Your task to perform on an android device: Open Youtube and go to the subscriptions tab Image 0: 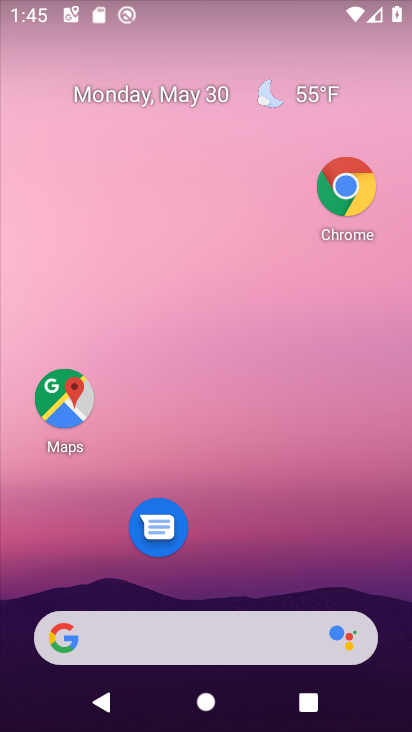
Step 0: drag from (233, 579) to (252, 204)
Your task to perform on an android device: Open Youtube and go to the subscriptions tab Image 1: 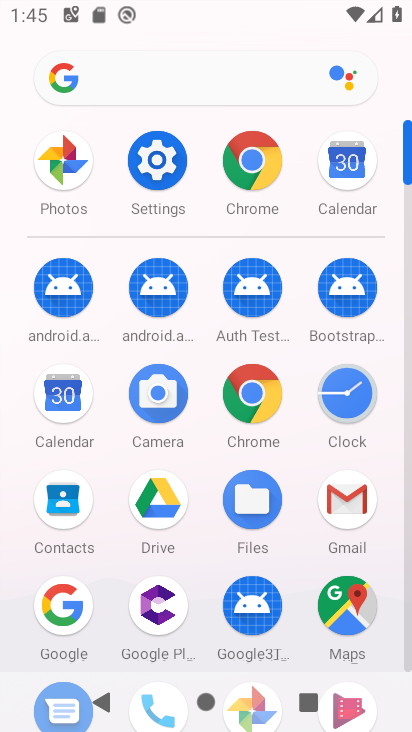
Step 1: drag from (199, 634) to (203, 332)
Your task to perform on an android device: Open Youtube and go to the subscriptions tab Image 2: 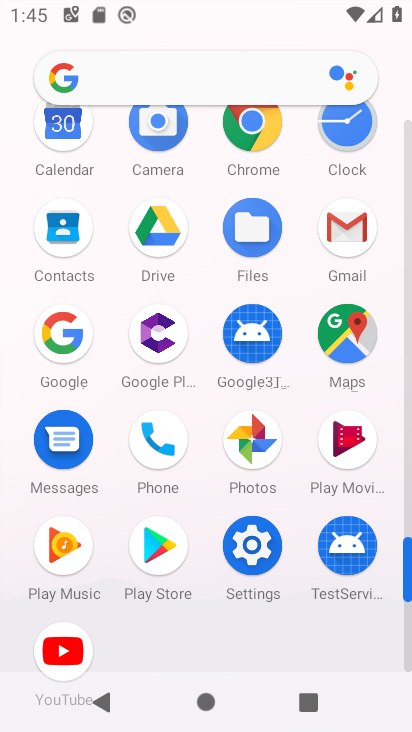
Step 2: click (57, 647)
Your task to perform on an android device: Open Youtube and go to the subscriptions tab Image 3: 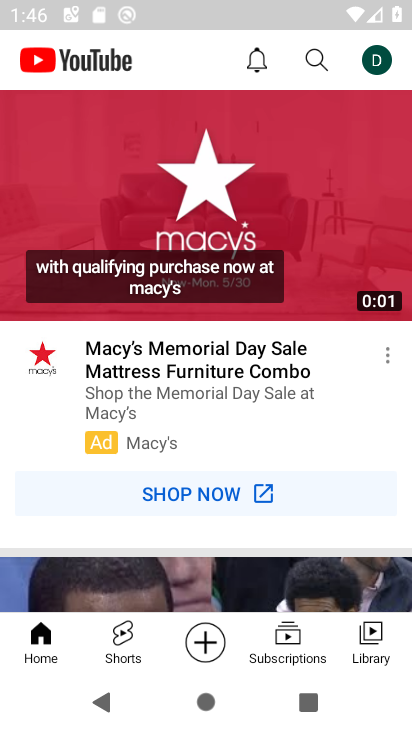
Step 3: drag from (223, 547) to (252, 110)
Your task to perform on an android device: Open Youtube and go to the subscriptions tab Image 4: 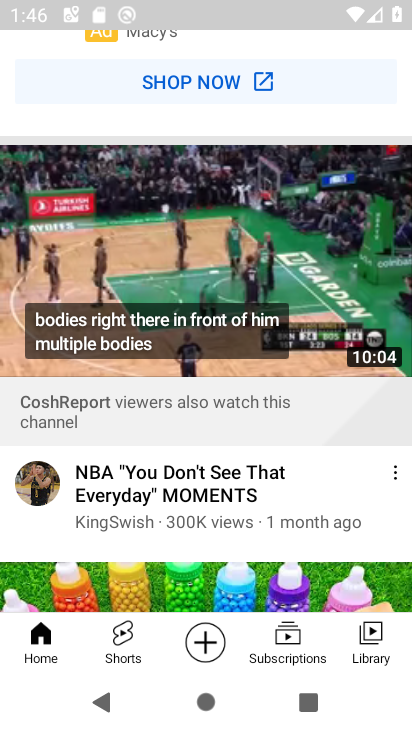
Step 4: drag from (215, 493) to (263, 125)
Your task to perform on an android device: Open Youtube and go to the subscriptions tab Image 5: 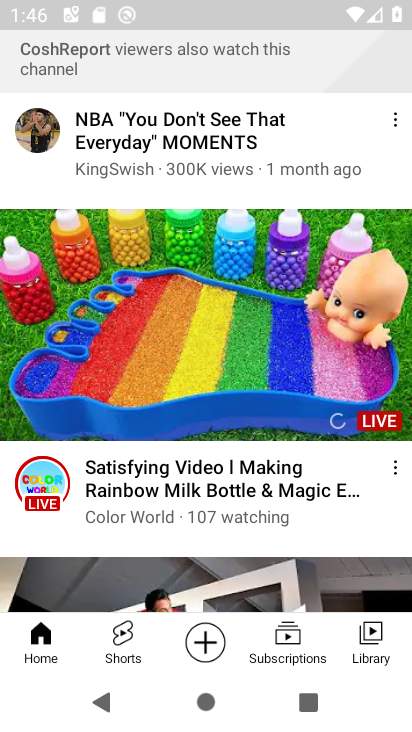
Step 5: drag from (245, 488) to (259, 244)
Your task to perform on an android device: Open Youtube and go to the subscriptions tab Image 6: 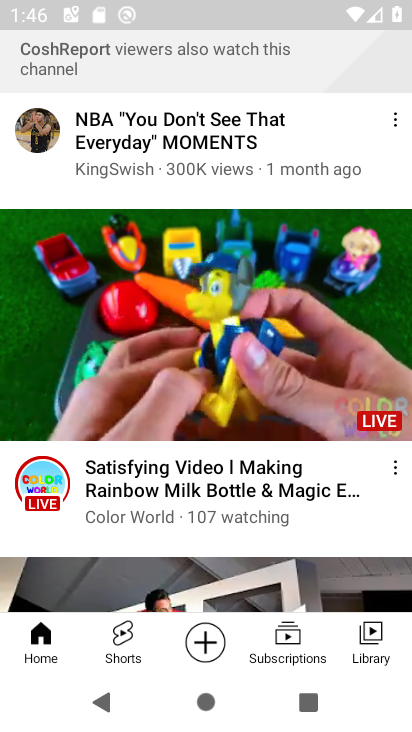
Step 6: drag from (274, 534) to (275, 161)
Your task to perform on an android device: Open Youtube and go to the subscriptions tab Image 7: 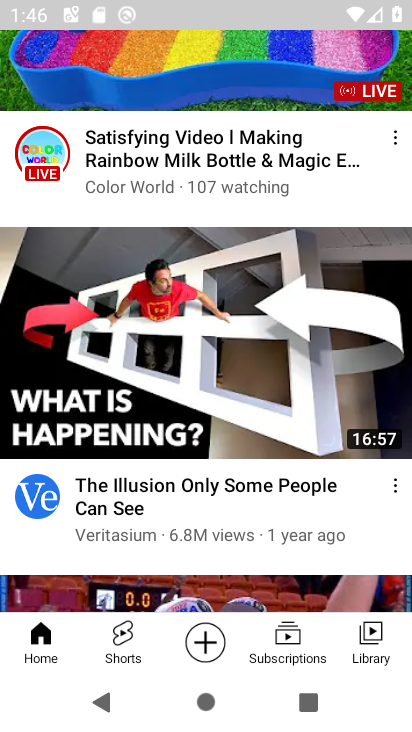
Step 7: drag from (249, 481) to (280, 245)
Your task to perform on an android device: Open Youtube and go to the subscriptions tab Image 8: 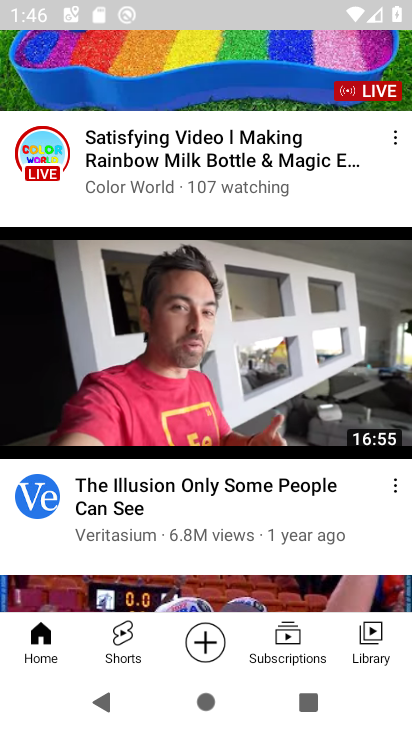
Step 8: drag from (265, 512) to (333, 273)
Your task to perform on an android device: Open Youtube and go to the subscriptions tab Image 9: 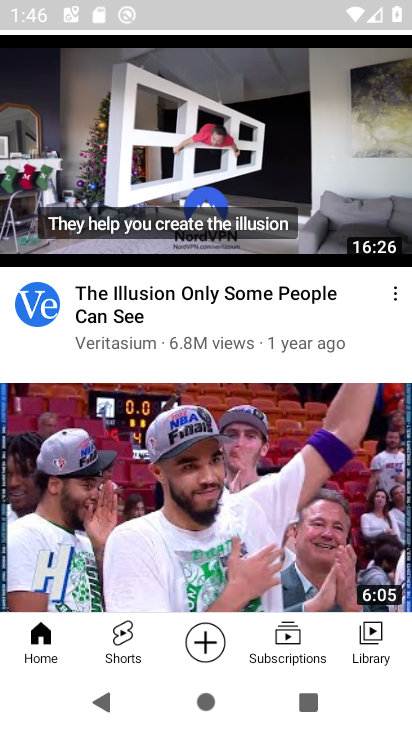
Step 9: click (287, 639)
Your task to perform on an android device: Open Youtube and go to the subscriptions tab Image 10: 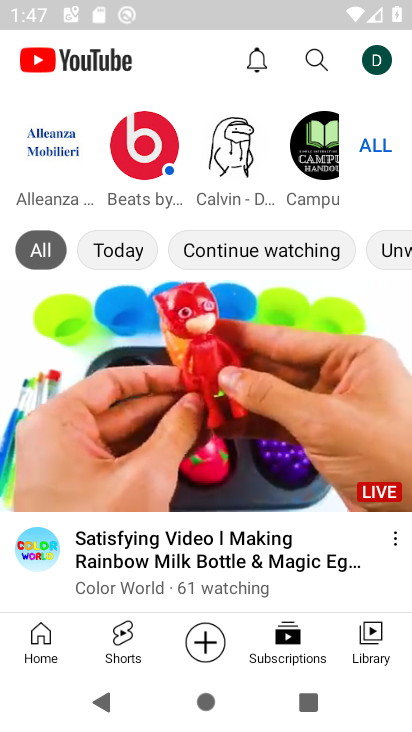
Step 10: task complete